Your task to perform on an android device: What's the weather like in Paris? Image 0: 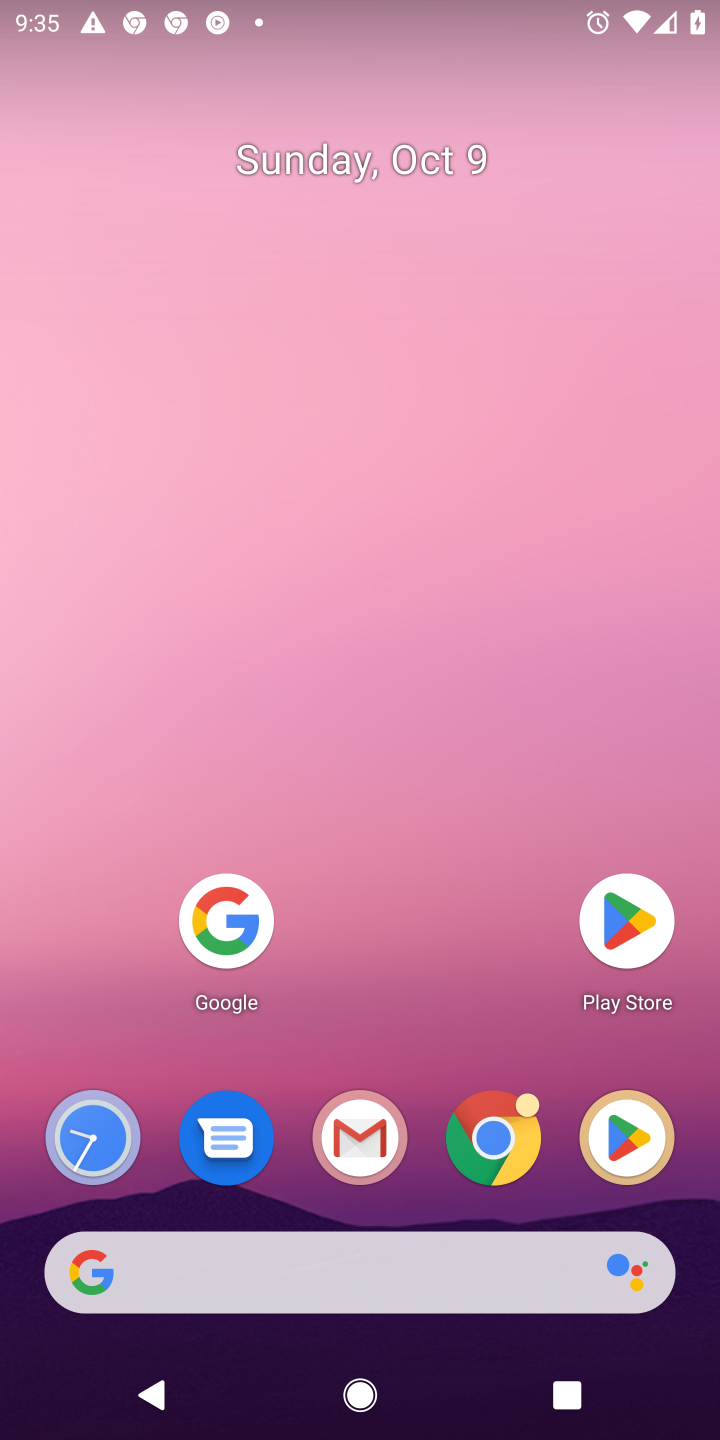
Step 0: click (245, 889)
Your task to perform on an android device: What's the weather like in Paris? Image 1: 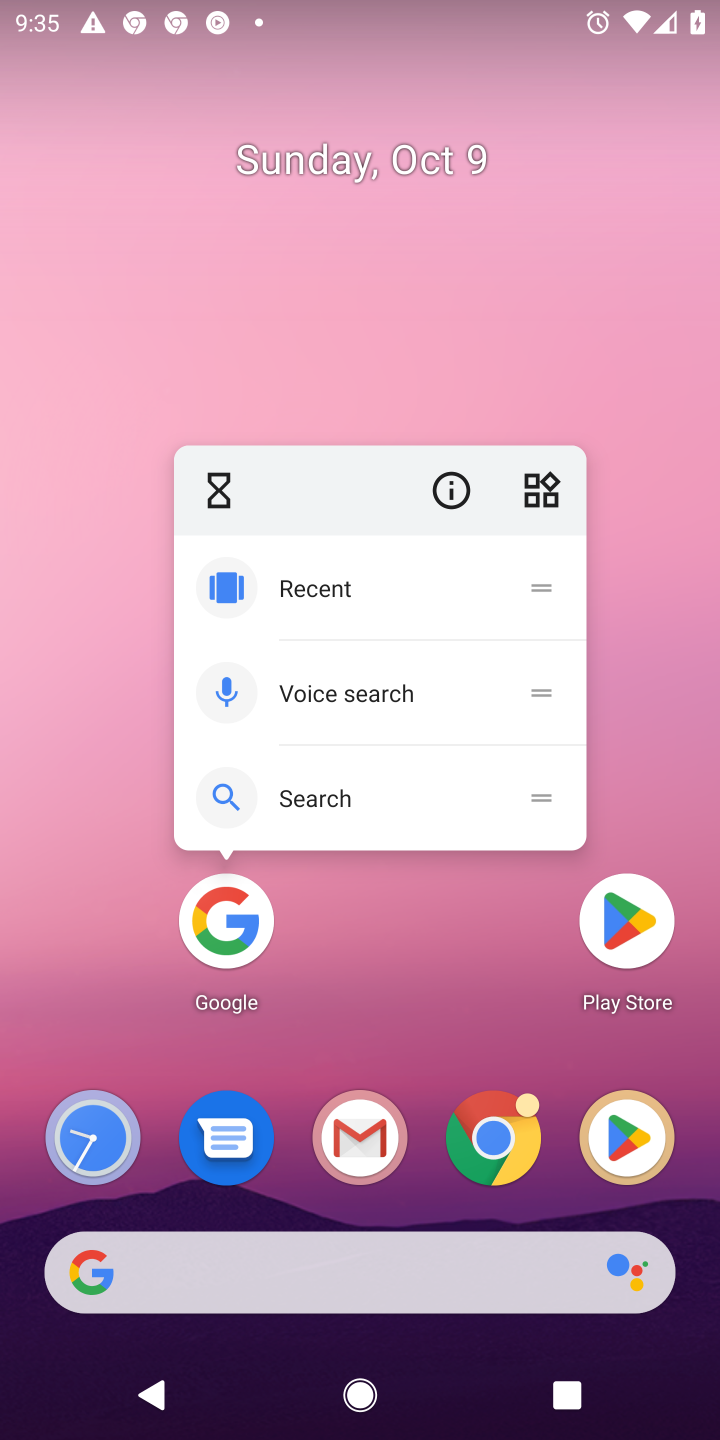
Step 1: click (238, 906)
Your task to perform on an android device: What's the weather like in Paris? Image 2: 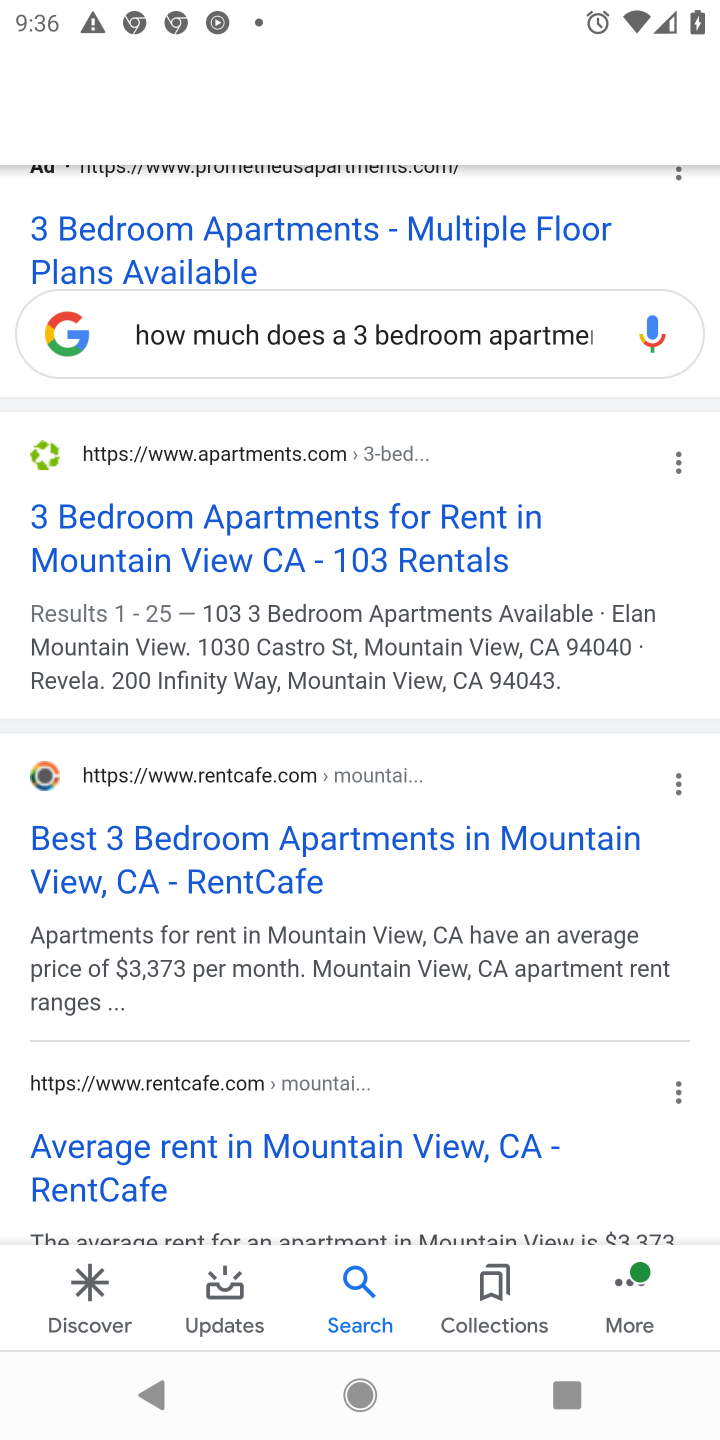
Step 2: click (379, 336)
Your task to perform on an android device: What's the weather like in Paris? Image 3: 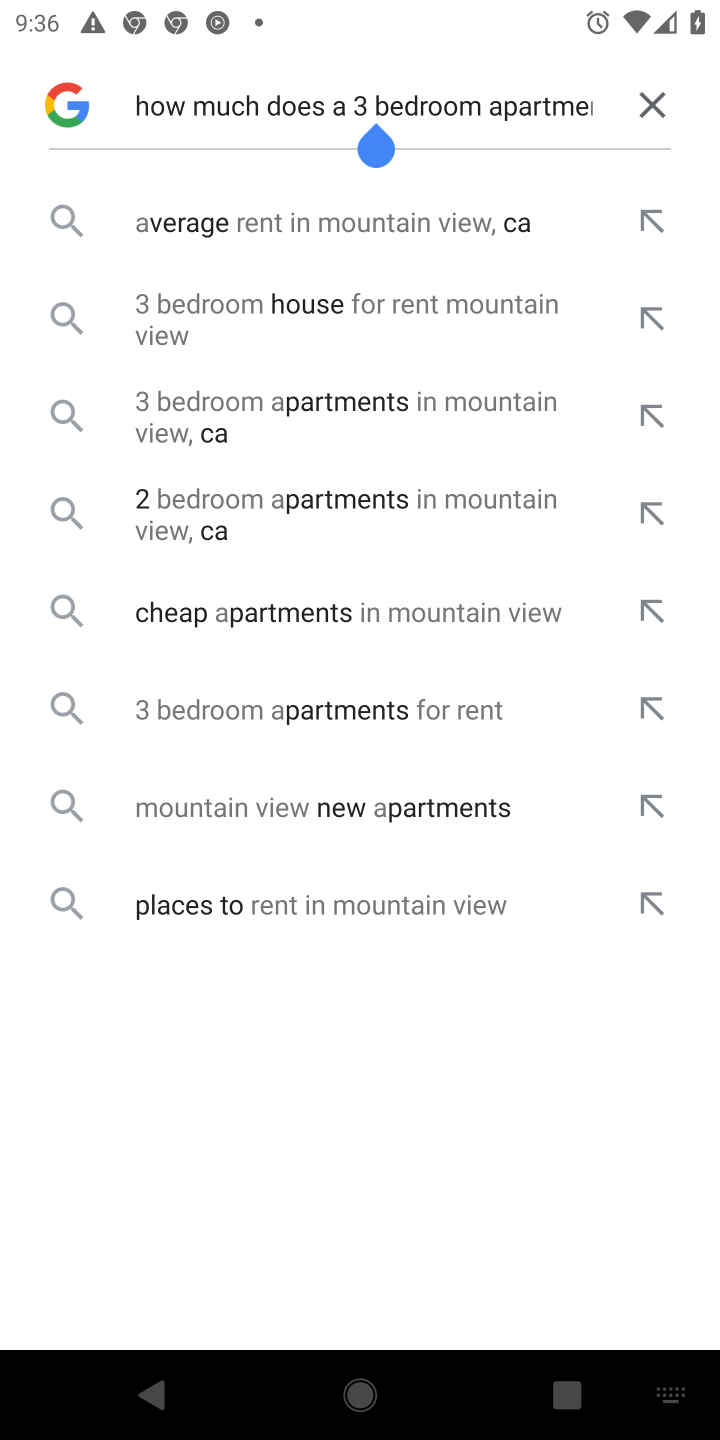
Step 3: click (644, 113)
Your task to perform on an android device: What's the weather like in Paris? Image 4: 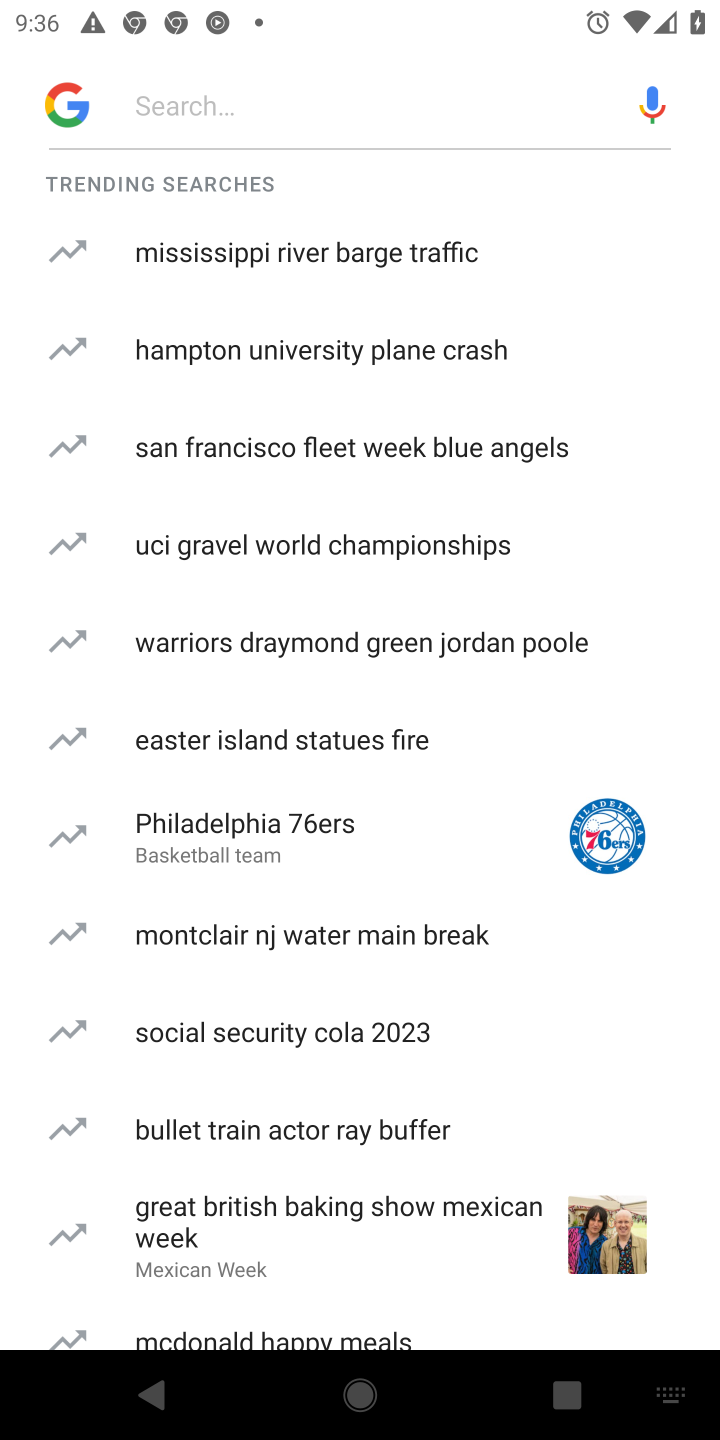
Step 4: click (281, 102)
Your task to perform on an android device: What's the weather like in Paris? Image 5: 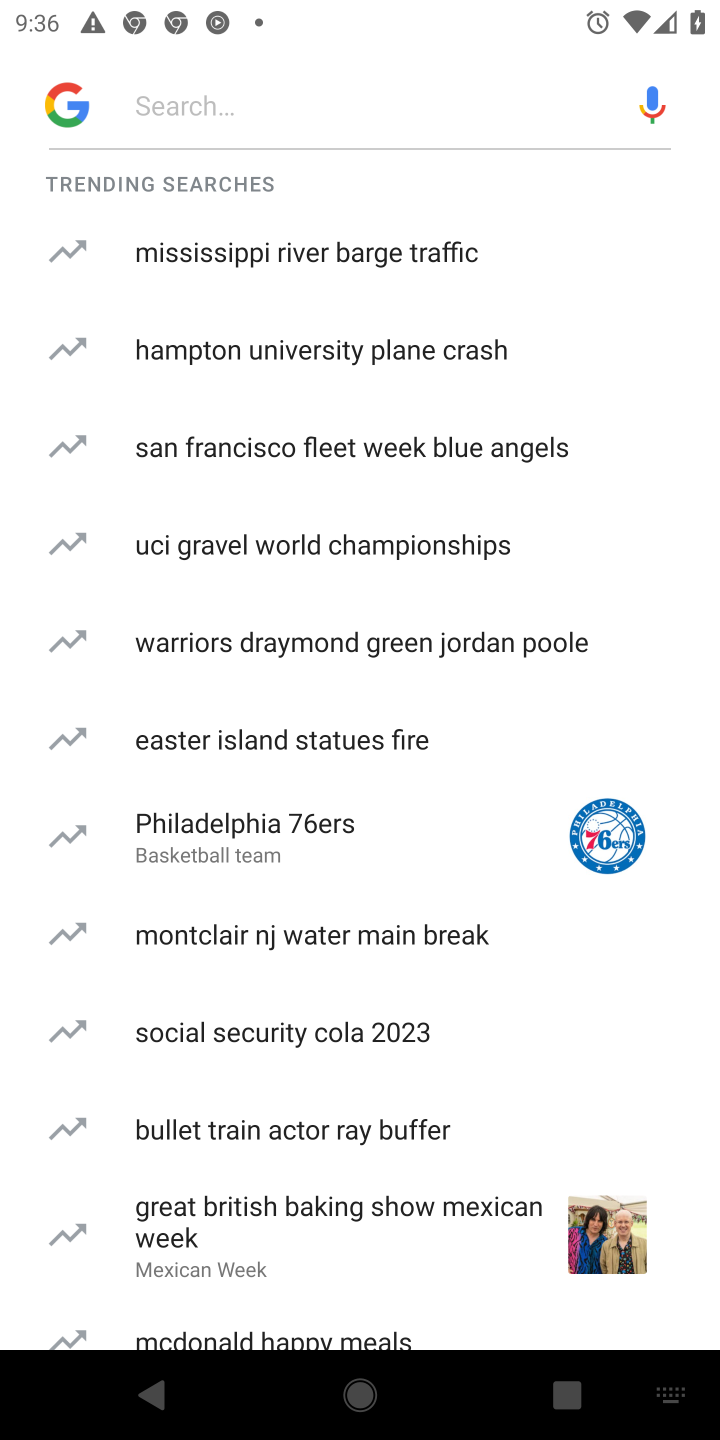
Step 5: type "What's the weather like in Paris? "
Your task to perform on an android device: What's the weather like in Paris? Image 6: 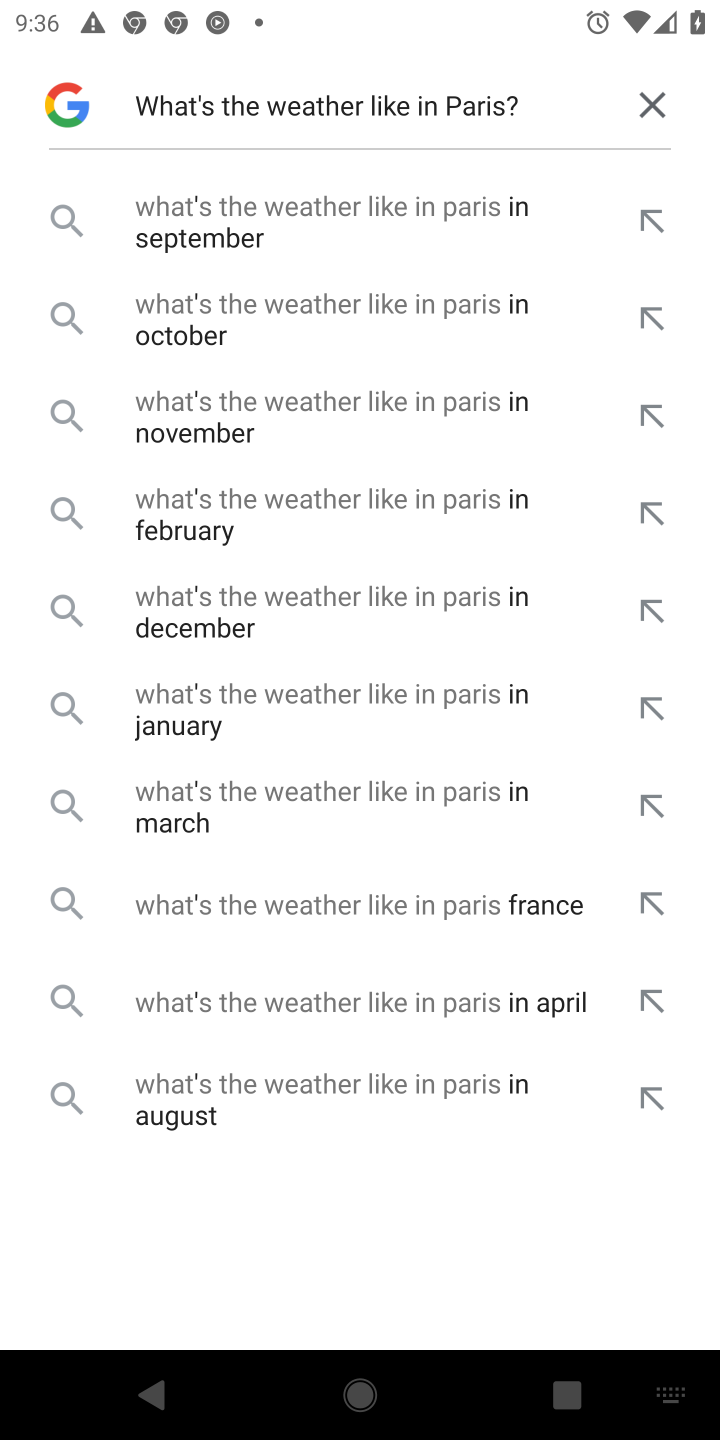
Step 6: click (271, 332)
Your task to perform on an android device: What's the weather like in Paris? Image 7: 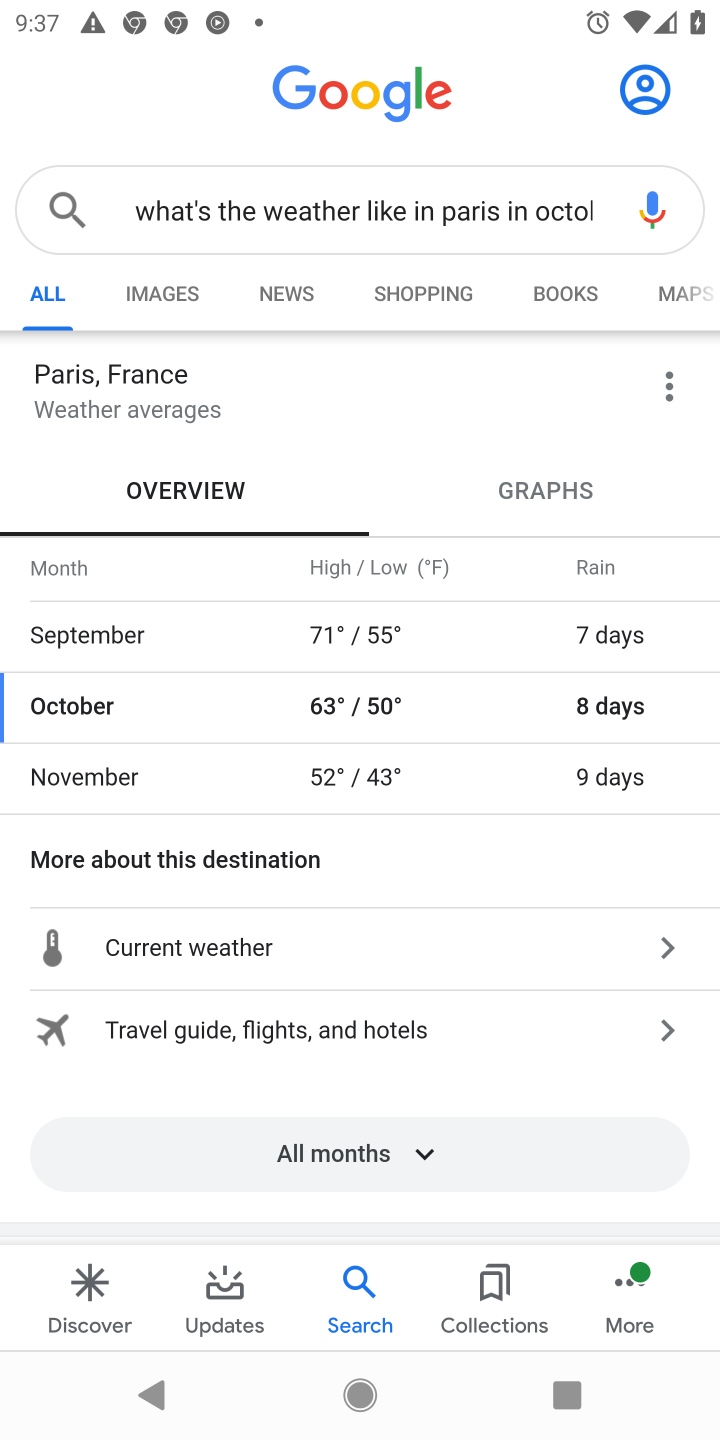
Step 7: task complete